Your task to perform on an android device: Go to display settings Image 0: 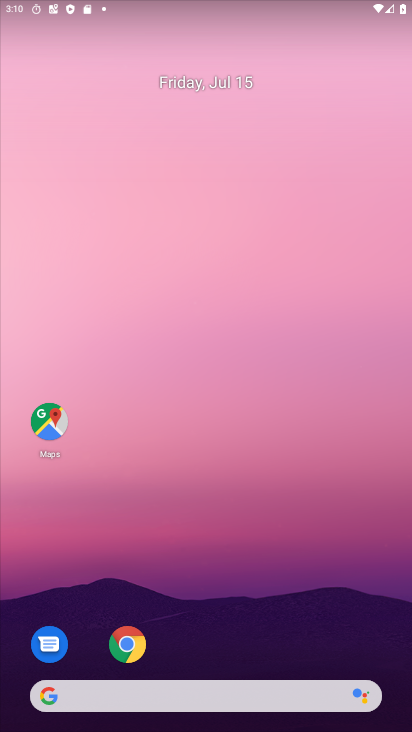
Step 0: drag from (163, 635) to (213, 66)
Your task to perform on an android device: Go to display settings Image 1: 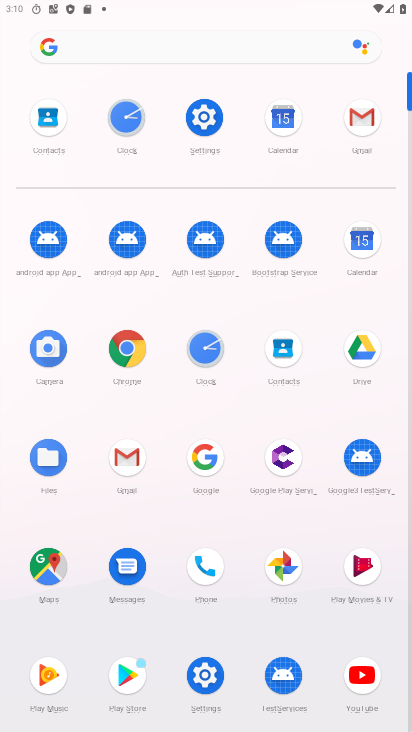
Step 1: click (209, 122)
Your task to perform on an android device: Go to display settings Image 2: 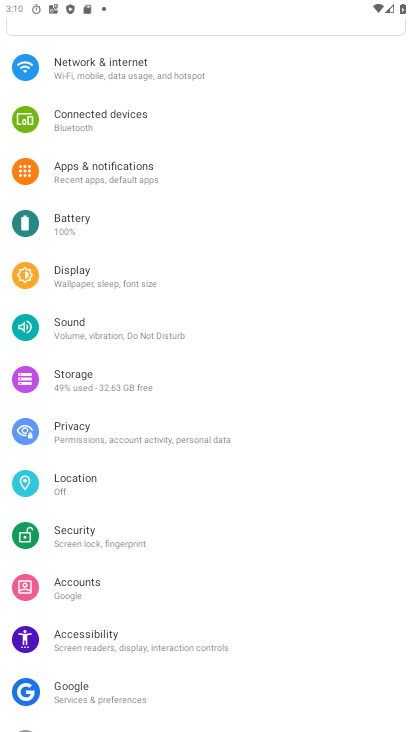
Step 2: click (105, 274)
Your task to perform on an android device: Go to display settings Image 3: 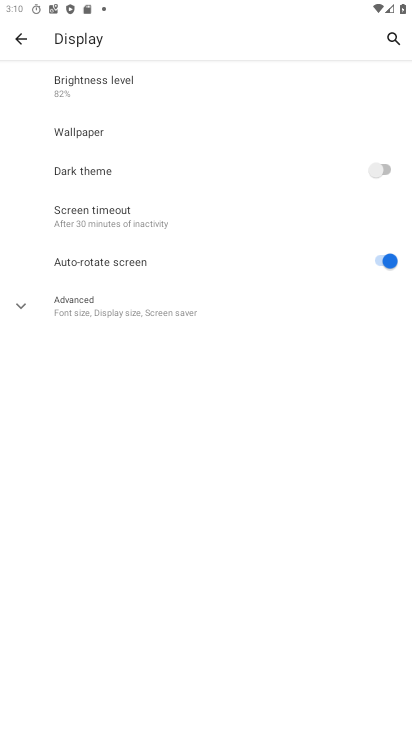
Step 3: task complete